Your task to perform on an android device: turn vacation reply on in the gmail app Image 0: 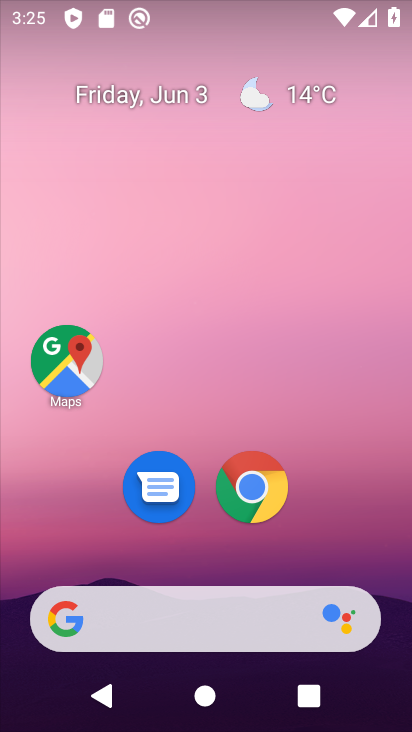
Step 0: drag from (199, 498) to (259, 57)
Your task to perform on an android device: turn vacation reply on in the gmail app Image 1: 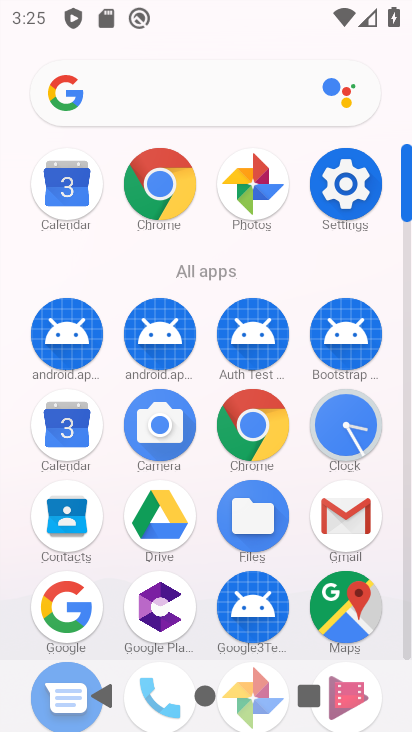
Step 1: click (340, 504)
Your task to perform on an android device: turn vacation reply on in the gmail app Image 2: 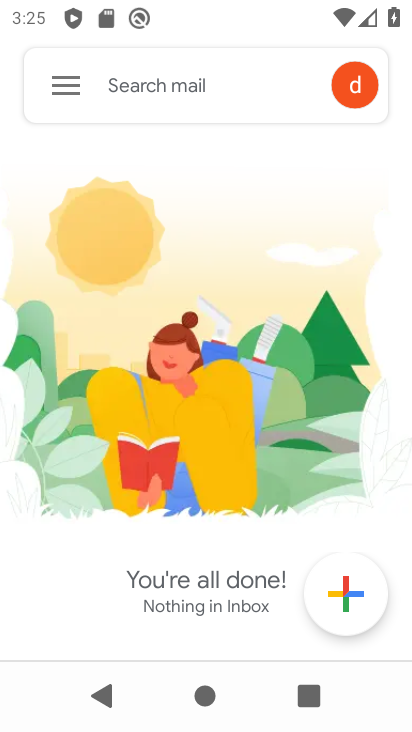
Step 2: click (56, 77)
Your task to perform on an android device: turn vacation reply on in the gmail app Image 3: 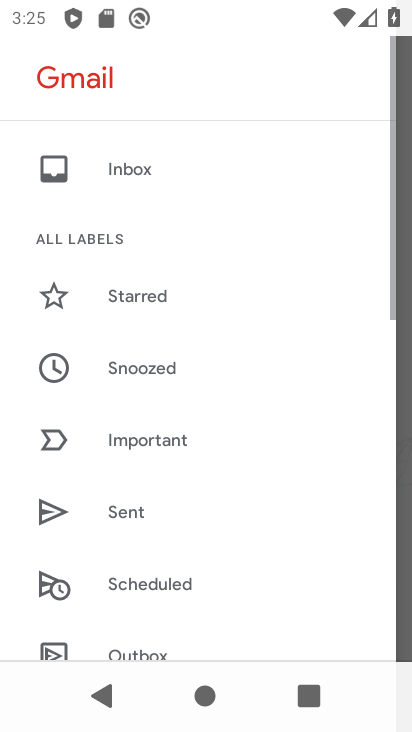
Step 3: drag from (158, 620) to (240, 57)
Your task to perform on an android device: turn vacation reply on in the gmail app Image 4: 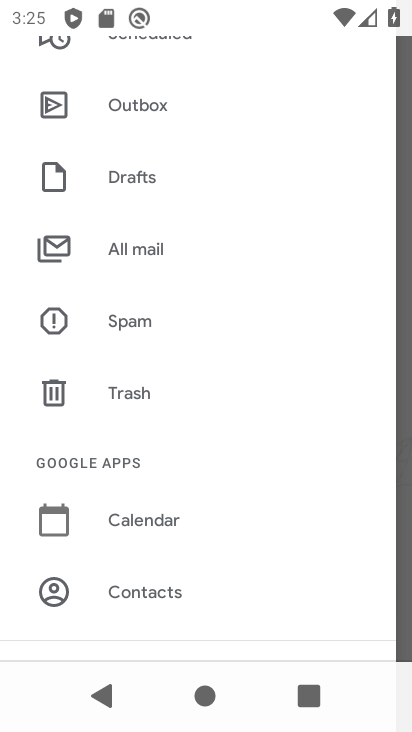
Step 4: drag from (144, 564) to (245, 79)
Your task to perform on an android device: turn vacation reply on in the gmail app Image 5: 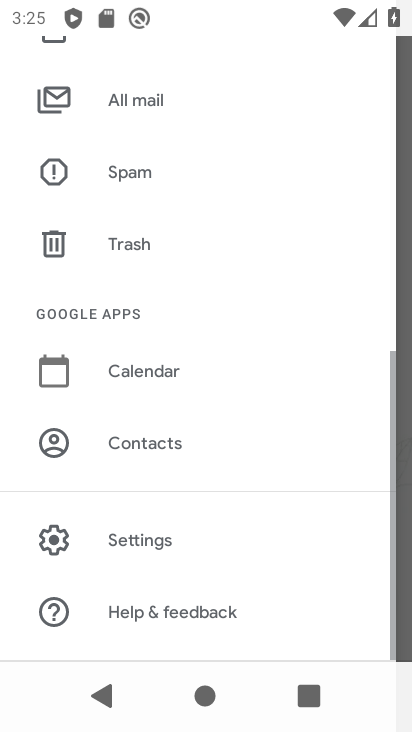
Step 5: click (138, 549)
Your task to perform on an android device: turn vacation reply on in the gmail app Image 6: 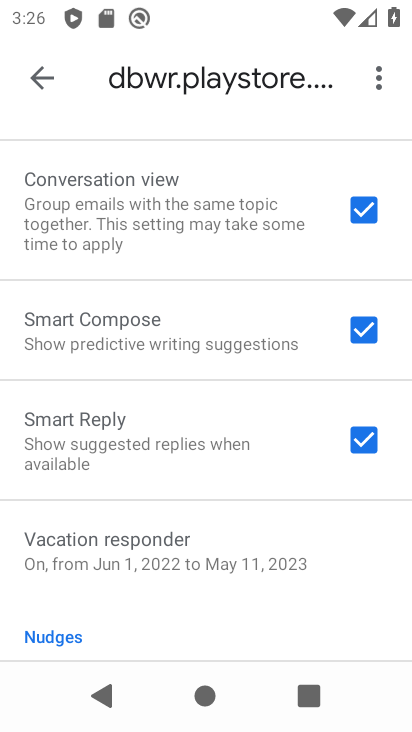
Step 6: click (156, 550)
Your task to perform on an android device: turn vacation reply on in the gmail app Image 7: 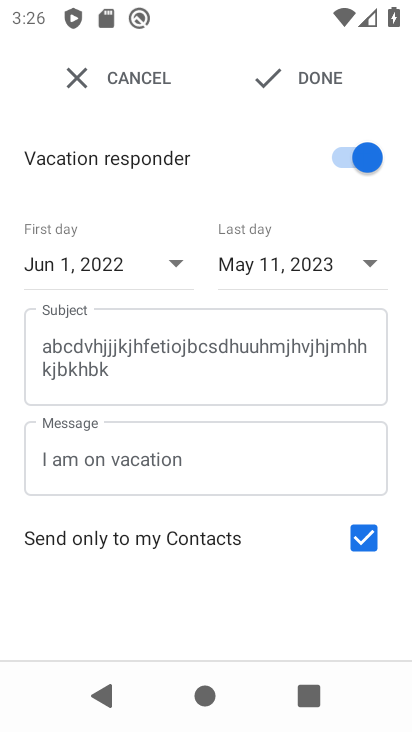
Step 7: task complete